Your task to perform on an android device: turn off translation in the chrome app Image 0: 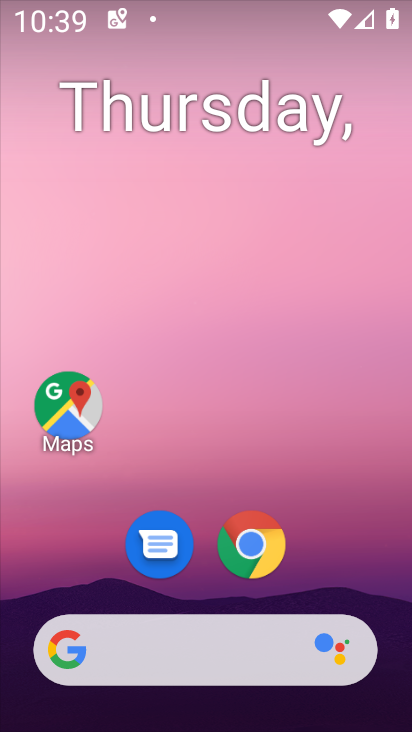
Step 0: drag from (353, 522) to (247, 14)
Your task to perform on an android device: turn off translation in the chrome app Image 1: 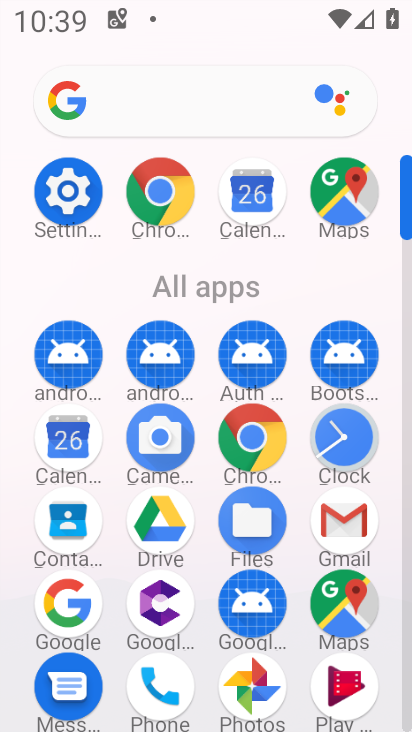
Step 1: drag from (9, 552) to (8, 308)
Your task to perform on an android device: turn off translation in the chrome app Image 2: 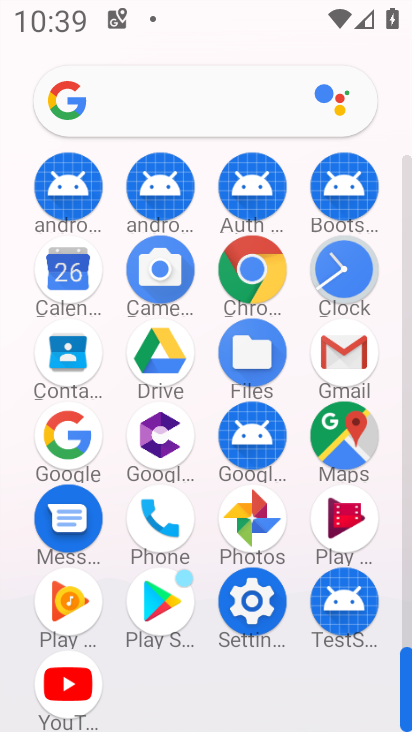
Step 2: click (244, 269)
Your task to perform on an android device: turn off translation in the chrome app Image 3: 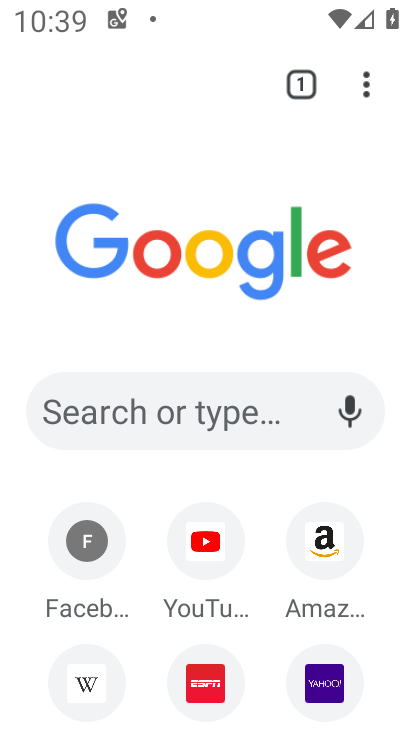
Step 3: drag from (358, 99) to (113, 562)
Your task to perform on an android device: turn off translation in the chrome app Image 4: 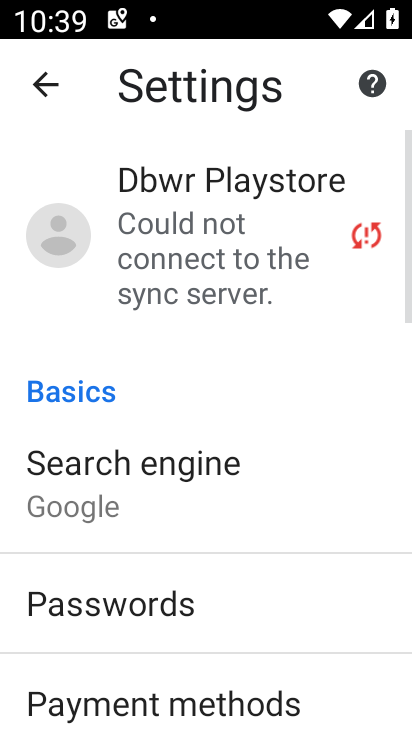
Step 4: drag from (221, 615) to (270, 172)
Your task to perform on an android device: turn off translation in the chrome app Image 5: 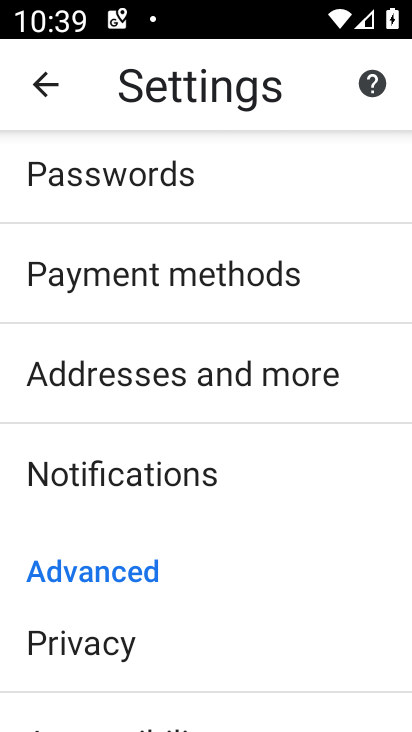
Step 5: drag from (277, 593) to (280, 181)
Your task to perform on an android device: turn off translation in the chrome app Image 6: 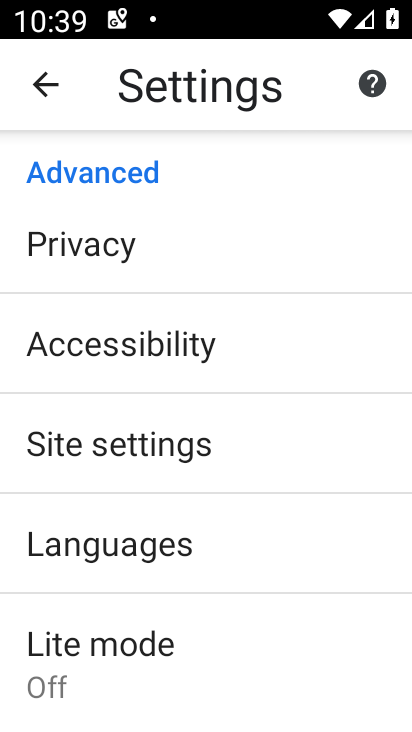
Step 6: drag from (286, 619) to (269, 322)
Your task to perform on an android device: turn off translation in the chrome app Image 7: 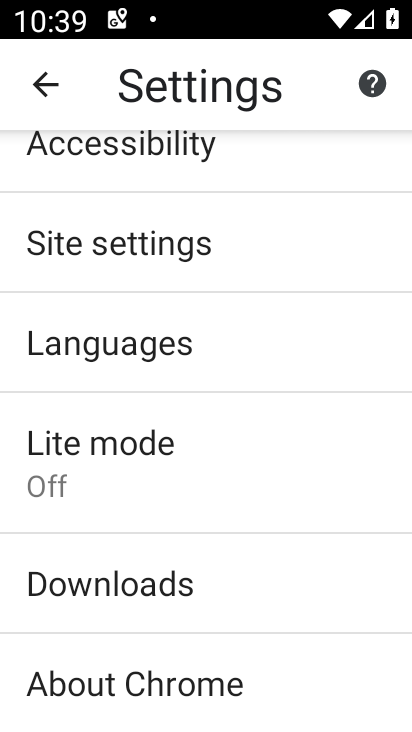
Step 7: click (225, 329)
Your task to perform on an android device: turn off translation in the chrome app Image 8: 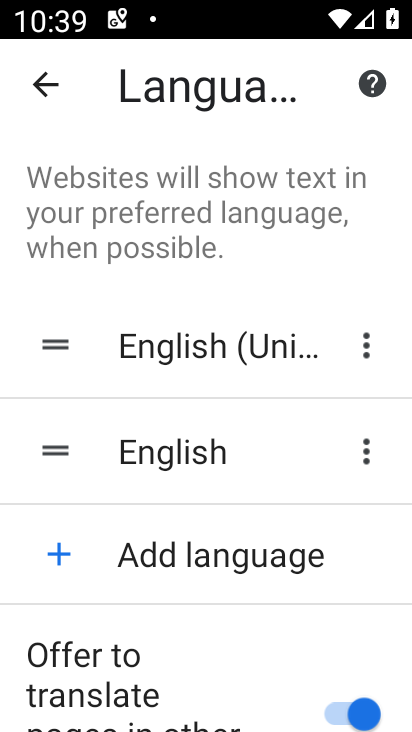
Step 8: click (343, 699)
Your task to perform on an android device: turn off translation in the chrome app Image 9: 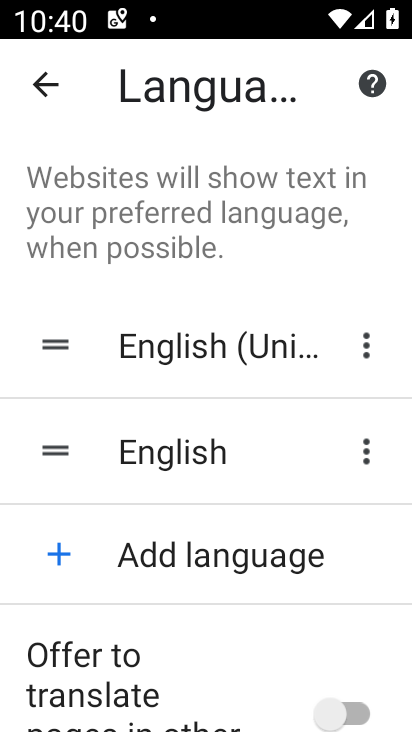
Step 9: task complete